Your task to perform on an android device: Open Google Image 0: 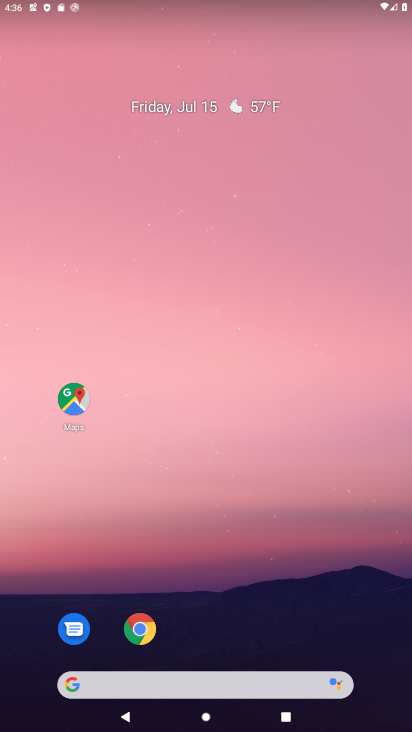
Step 0: click (76, 687)
Your task to perform on an android device: Open Google Image 1: 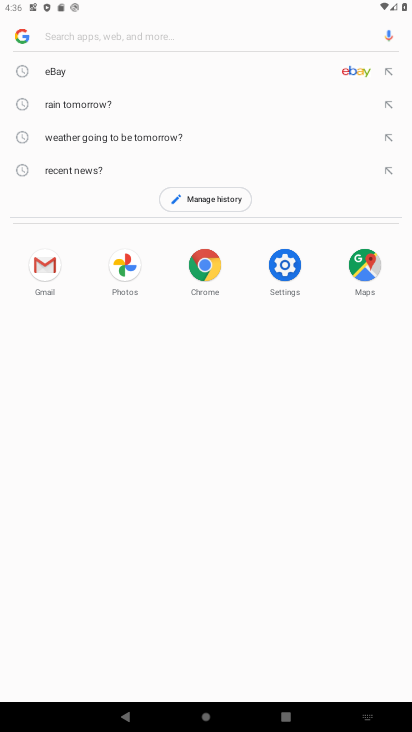
Step 1: task complete